Your task to perform on an android device: turn off picture-in-picture Image 0: 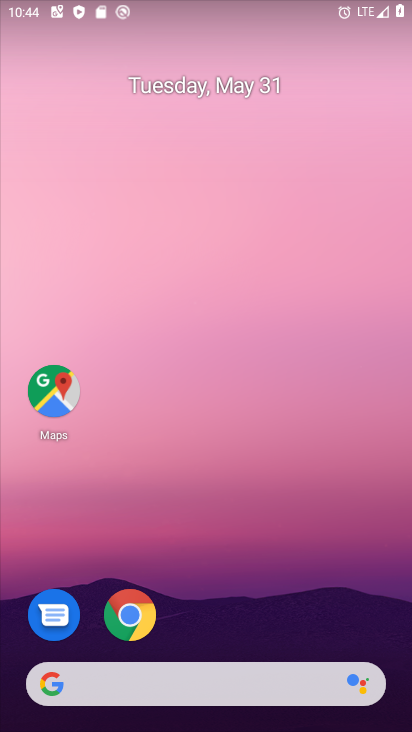
Step 0: drag from (243, 581) to (296, 62)
Your task to perform on an android device: turn off picture-in-picture Image 1: 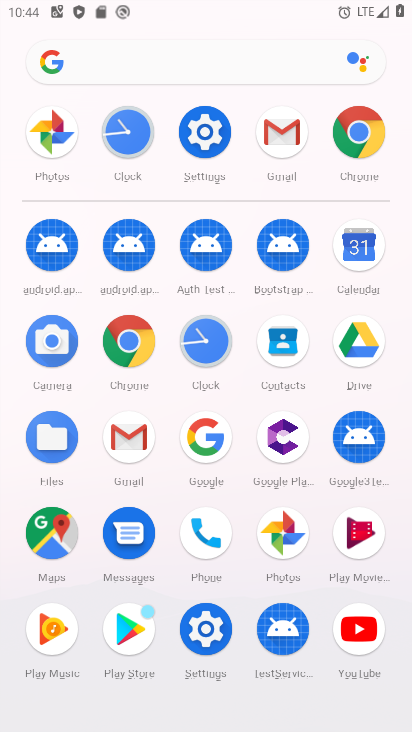
Step 1: click (375, 144)
Your task to perform on an android device: turn off picture-in-picture Image 2: 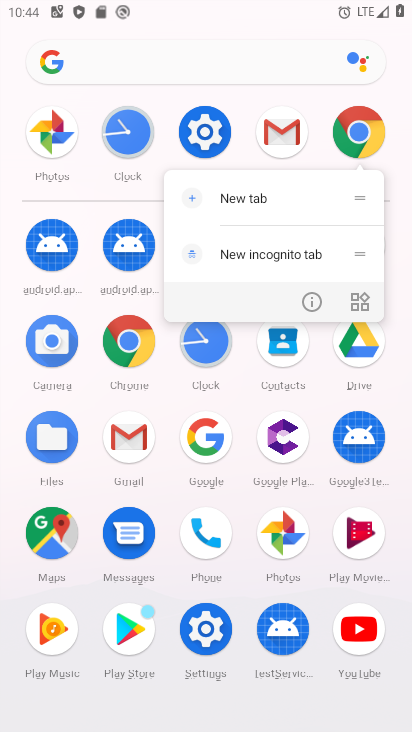
Step 2: click (310, 311)
Your task to perform on an android device: turn off picture-in-picture Image 3: 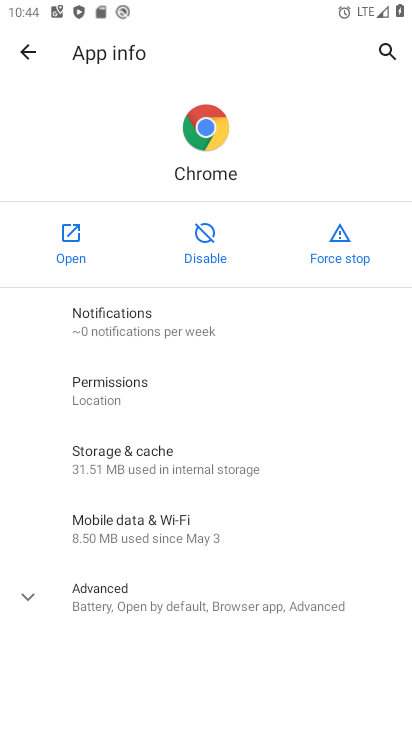
Step 3: click (125, 609)
Your task to perform on an android device: turn off picture-in-picture Image 4: 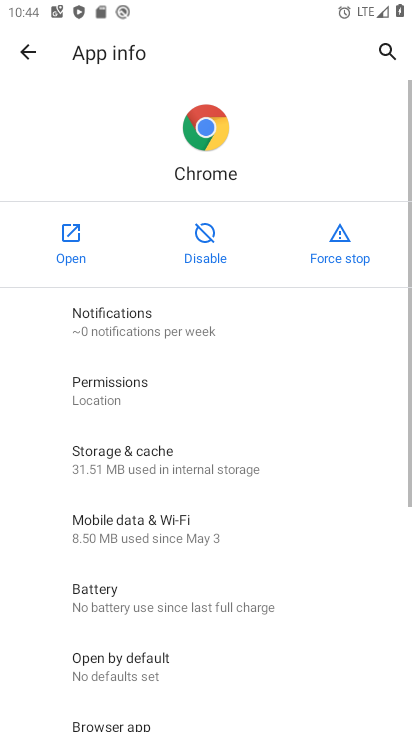
Step 4: drag from (138, 658) to (288, 285)
Your task to perform on an android device: turn off picture-in-picture Image 5: 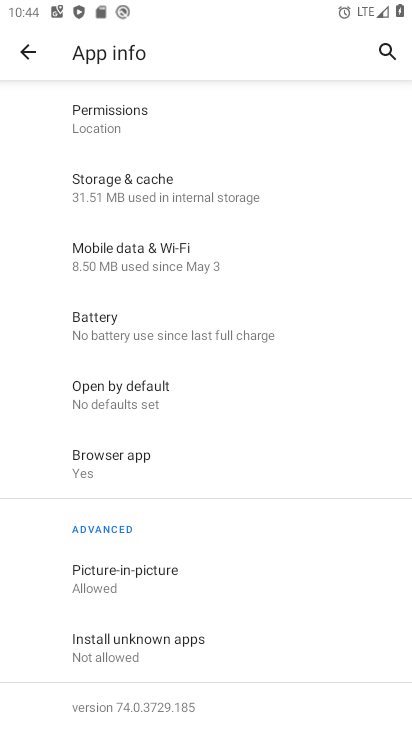
Step 5: click (121, 583)
Your task to perform on an android device: turn off picture-in-picture Image 6: 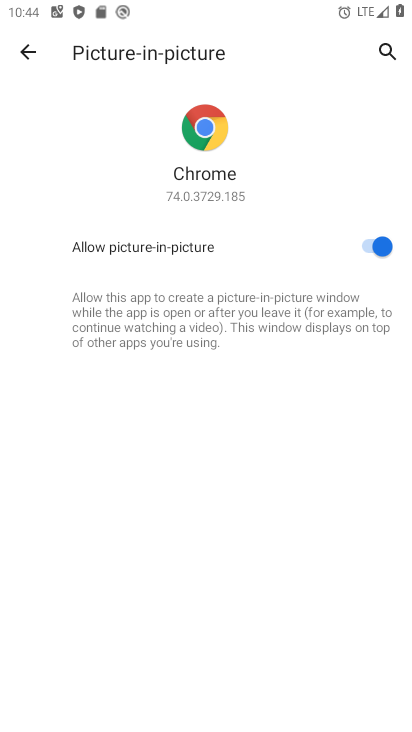
Step 6: click (375, 253)
Your task to perform on an android device: turn off picture-in-picture Image 7: 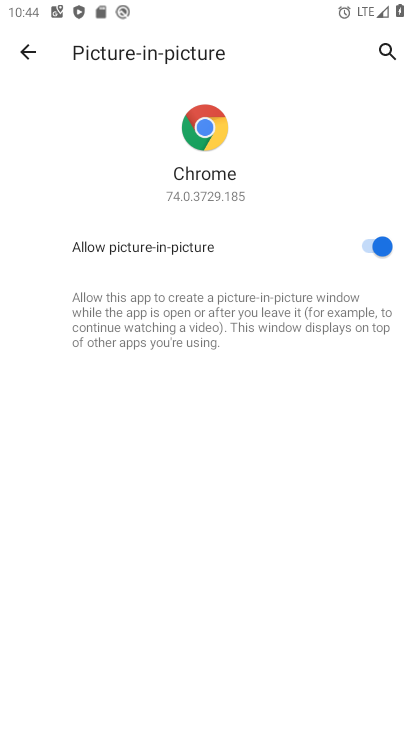
Step 7: click (375, 237)
Your task to perform on an android device: turn off picture-in-picture Image 8: 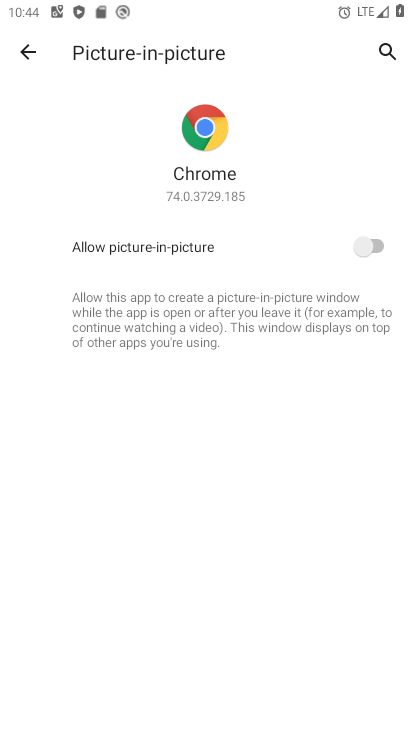
Step 8: task complete